Your task to perform on an android device: Show the shopping cart on walmart.com. Add "dell xps" to the cart on walmart.com, then select checkout. Image 0: 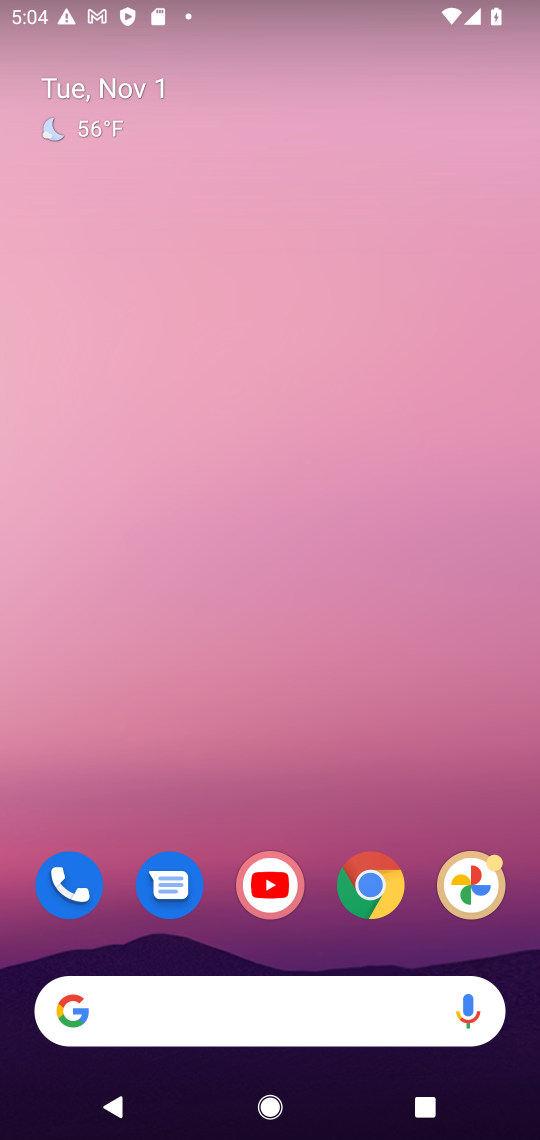
Step 0: click (369, 889)
Your task to perform on an android device: Show the shopping cart on walmart.com. Add "dell xps" to the cart on walmart.com, then select checkout. Image 1: 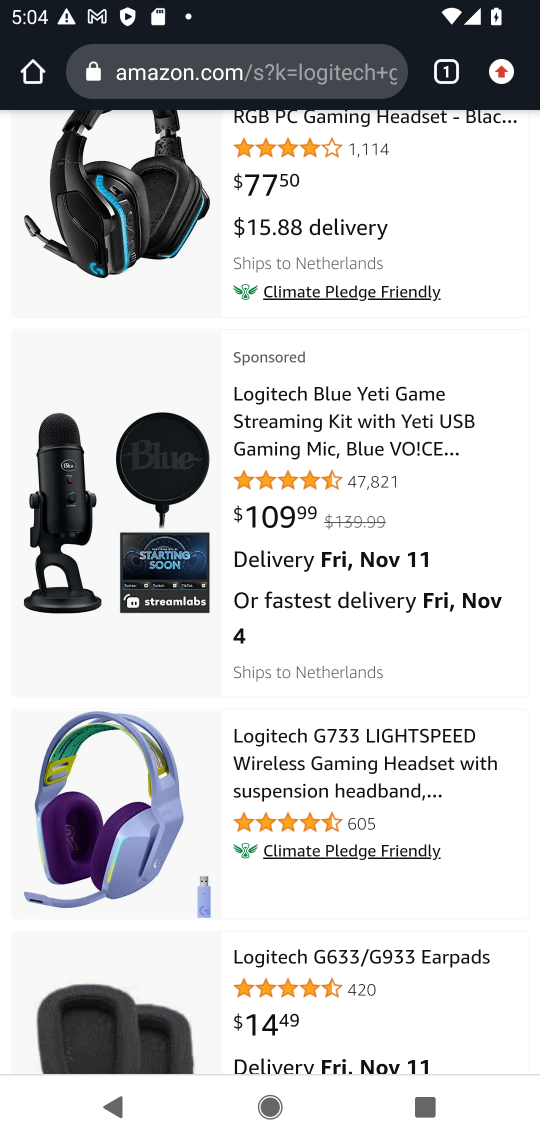
Step 1: click (247, 48)
Your task to perform on an android device: Show the shopping cart on walmart.com. Add "dell xps" to the cart on walmart.com, then select checkout. Image 2: 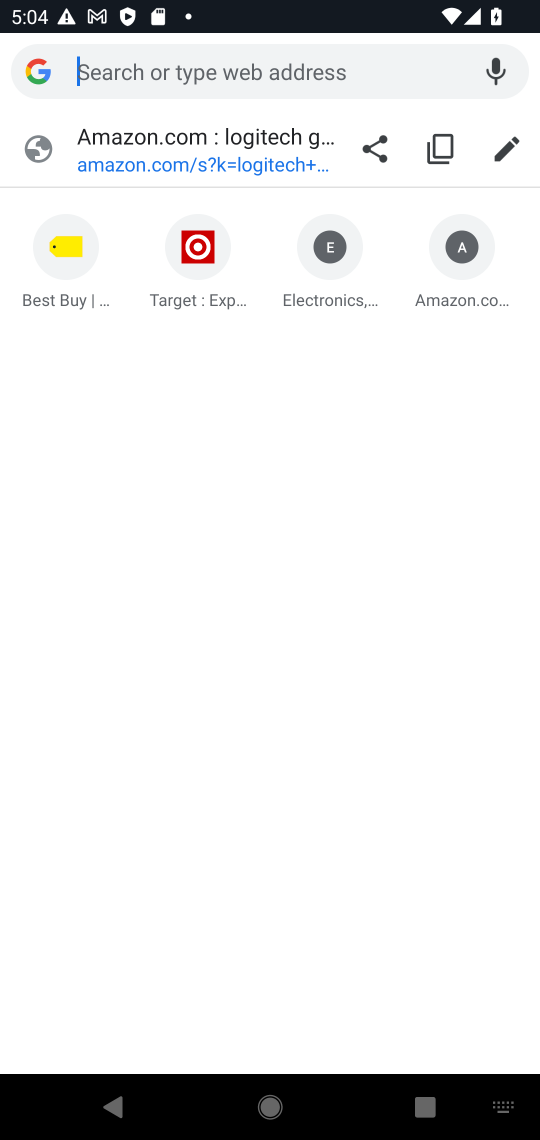
Step 2: type "walmart.com"
Your task to perform on an android device: Show the shopping cart on walmart.com. Add "dell xps" to the cart on walmart.com, then select checkout. Image 3: 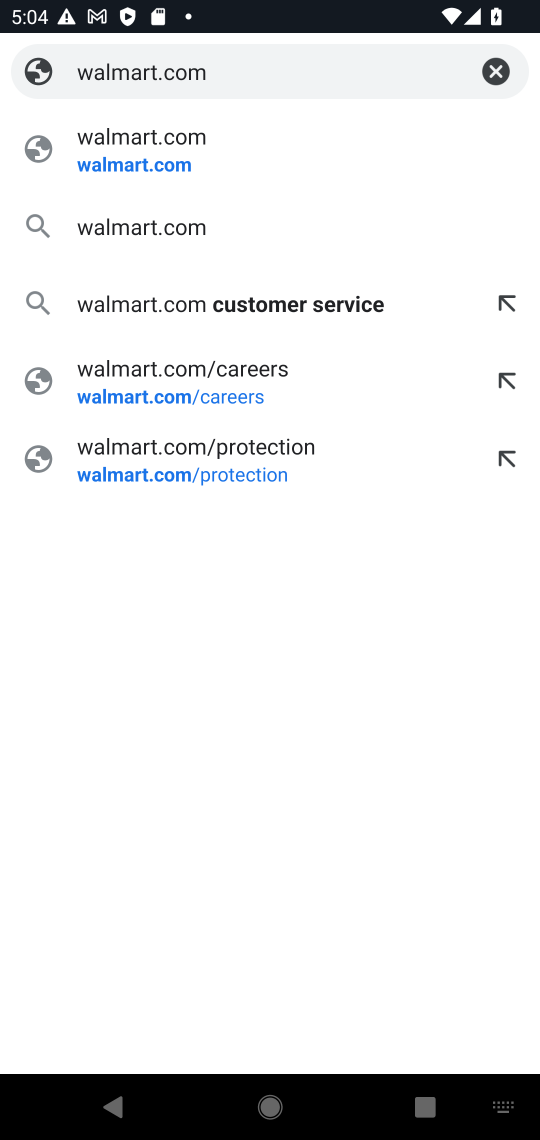
Step 3: click (138, 135)
Your task to perform on an android device: Show the shopping cart on walmart.com. Add "dell xps" to the cart on walmart.com, then select checkout. Image 4: 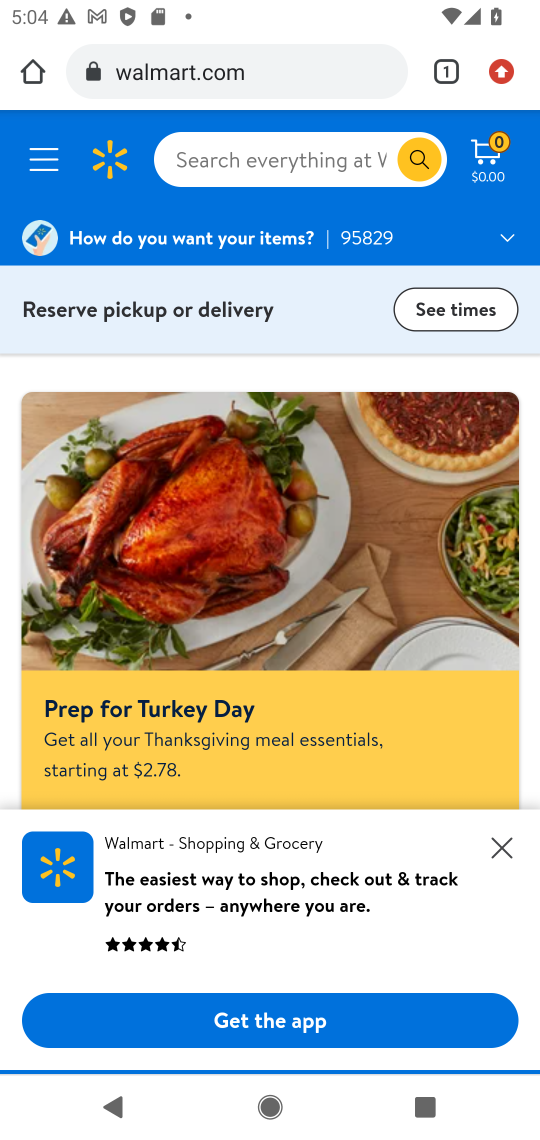
Step 4: click (486, 155)
Your task to perform on an android device: Show the shopping cart on walmart.com. Add "dell xps" to the cart on walmart.com, then select checkout. Image 5: 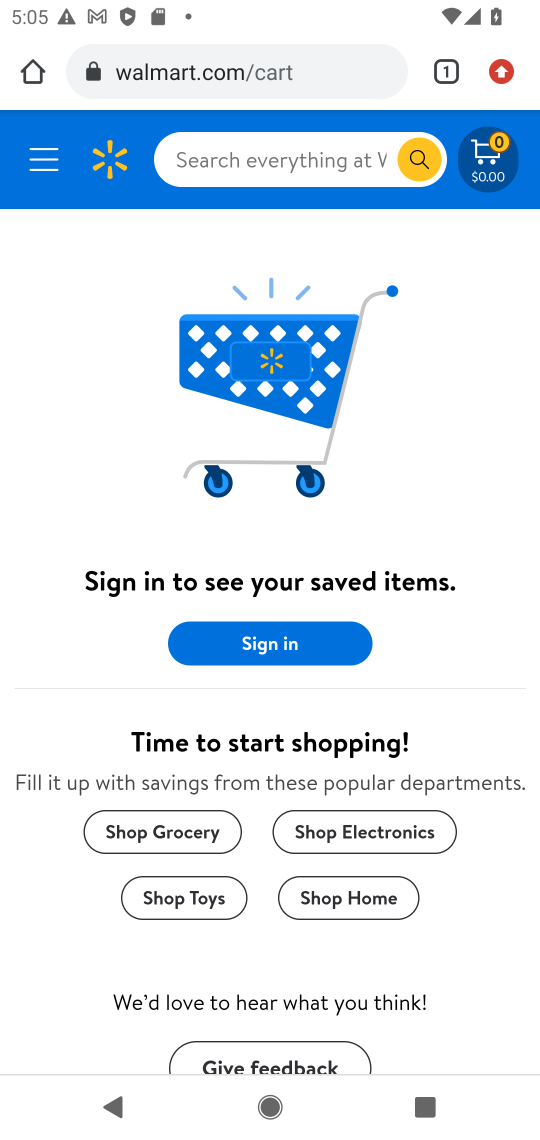
Step 5: click (189, 148)
Your task to perform on an android device: Show the shopping cart on walmart.com. Add "dell xps" to the cart on walmart.com, then select checkout. Image 6: 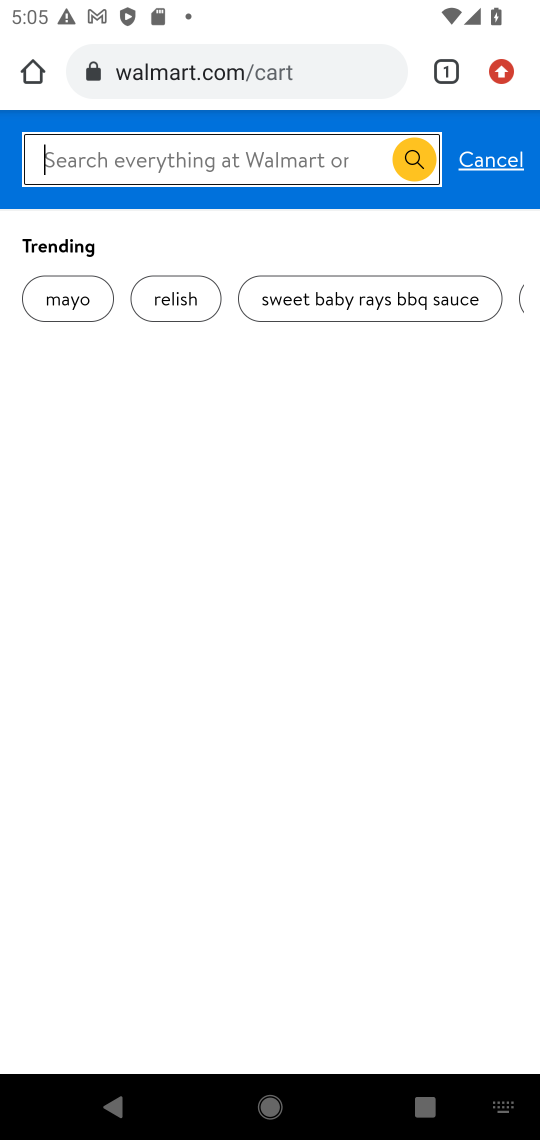
Step 6: type "dell xps"
Your task to perform on an android device: Show the shopping cart on walmart.com. Add "dell xps" to the cart on walmart.com, then select checkout. Image 7: 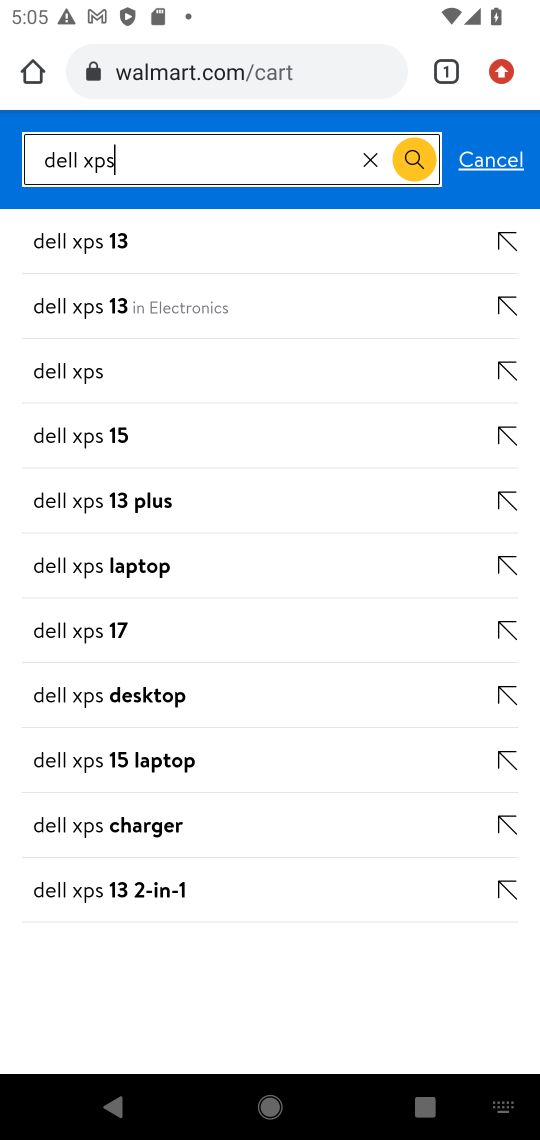
Step 7: click (84, 359)
Your task to perform on an android device: Show the shopping cart on walmart.com. Add "dell xps" to the cart on walmart.com, then select checkout. Image 8: 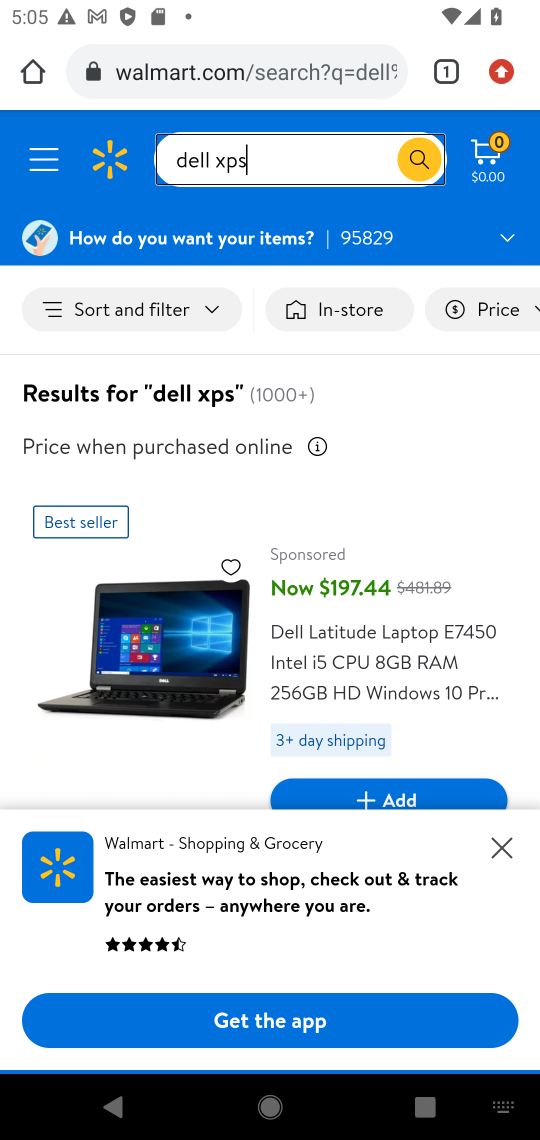
Step 8: drag from (265, 620) to (264, 391)
Your task to perform on an android device: Show the shopping cart on walmart.com. Add "dell xps" to the cart on walmart.com, then select checkout. Image 9: 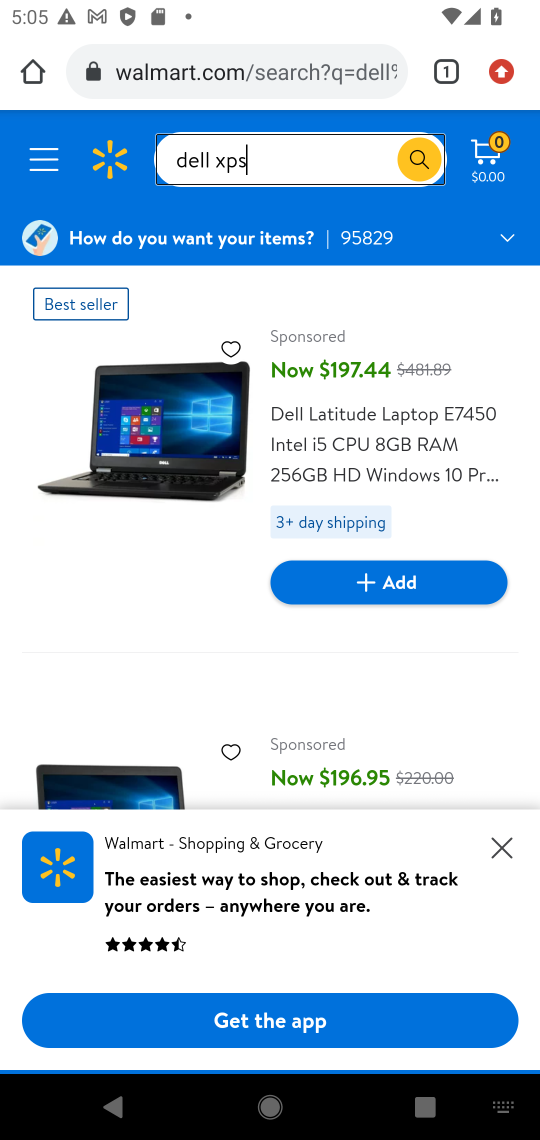
Step 9: click (369, 577)
Your task to perform on an android device: Show the shopping cart on walmart.com. Add "dell xps" to the cart on walmart.com, then select checkout. Image 10: 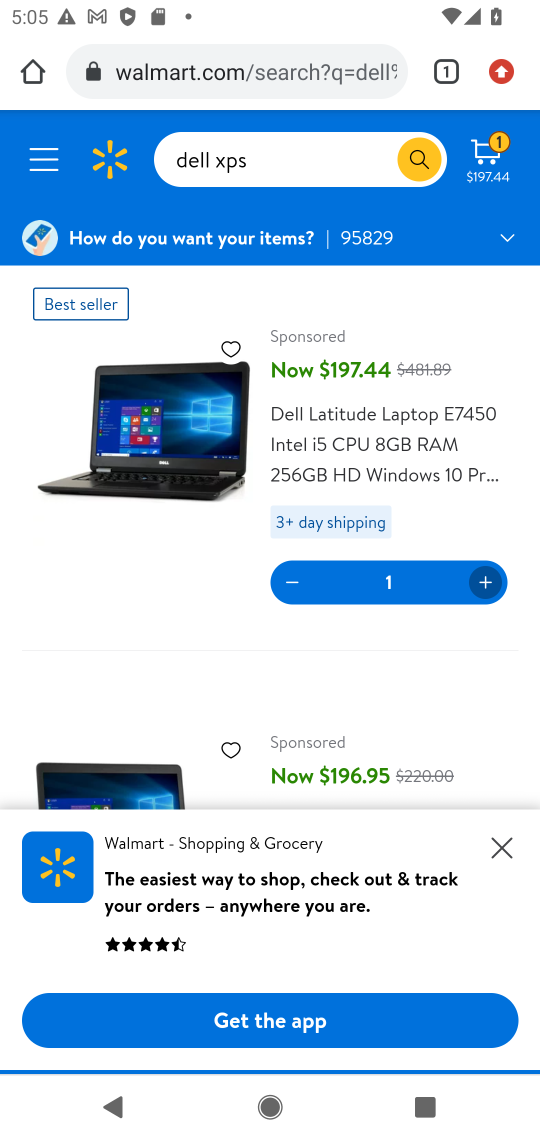
Step 10: click (489, 145)
Your task to perform on an android device: Show the shopping cart on walmart.com. Add "dell xps" to the cart on walmart.com, then select checkout. Image 11: 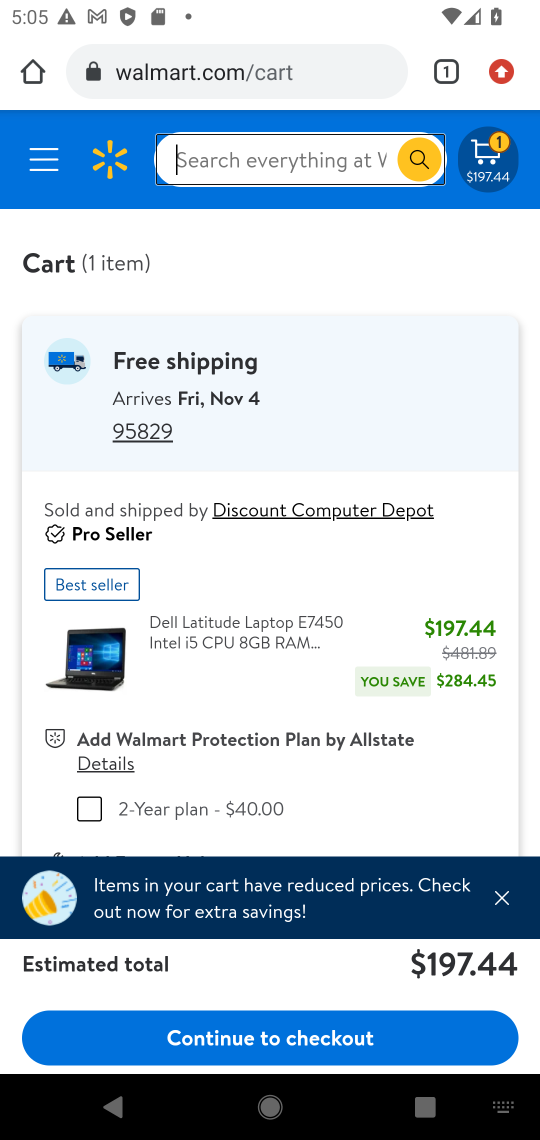
Step 11: drag from (378, 802) to (405, 392)
Your task to perform on an android device: Show the shopping cart on walmart.com. Add "dell xps" to the cart on walmart.com, then select checkout. Image 12: 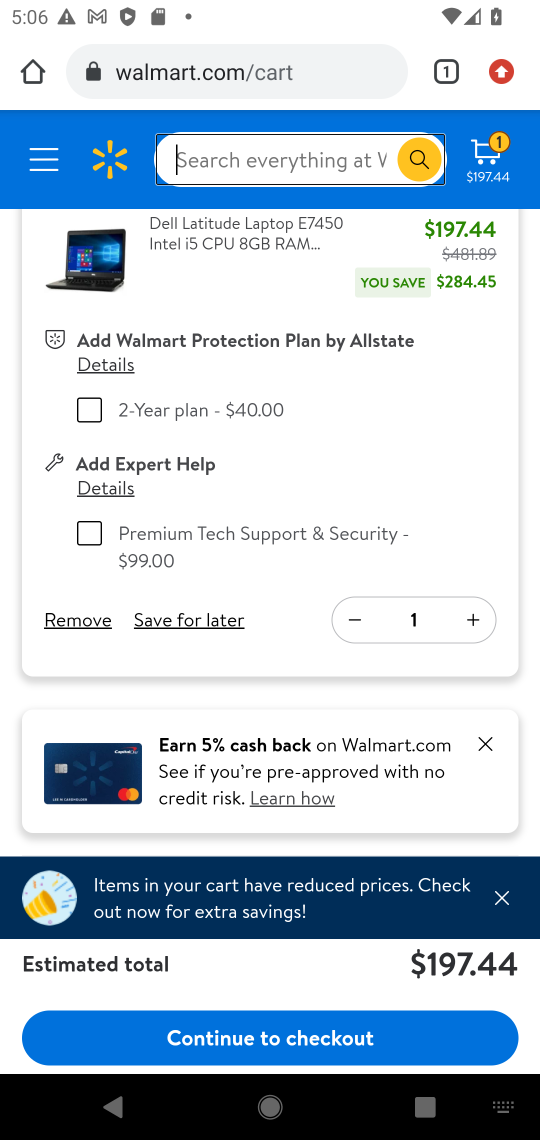
Step 12: click (496, 898)
Your task to perform on an android device: Show the shopping cart on walmart.com. Add "dell xps" to the cart on walmart.com, then select checkout. Image 13: 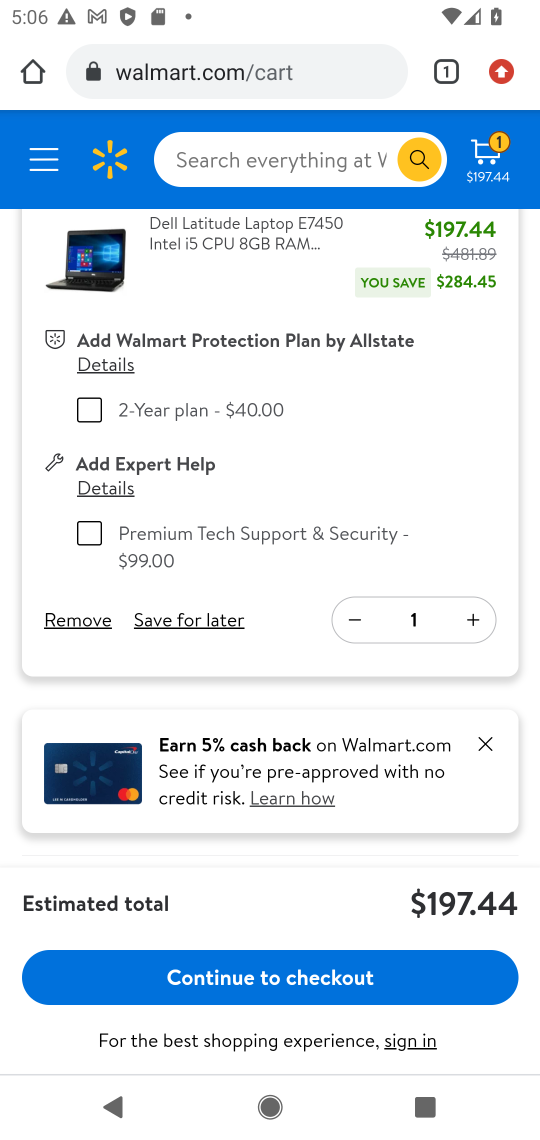
Step 13: click (244, 977)
Your task to perform on an android device: Show the shopping cart on walmart.com. Add "dell xps" to the cart on walmart.com, then select checkout. Image 14: 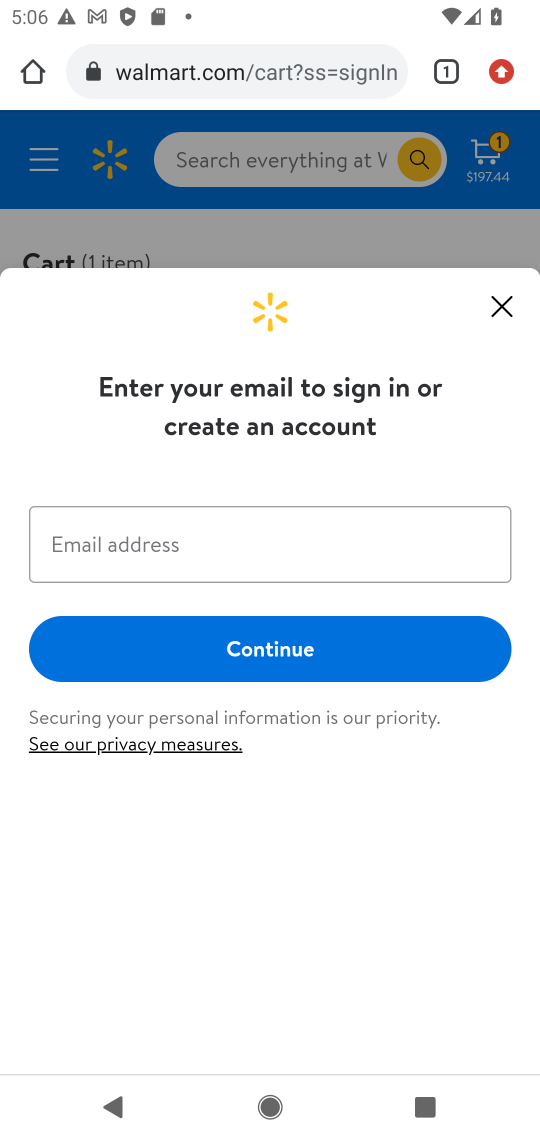
Step 14: task complete